Your task to perform on an android device: Search for Mexican restaurants on Maps Image 0: 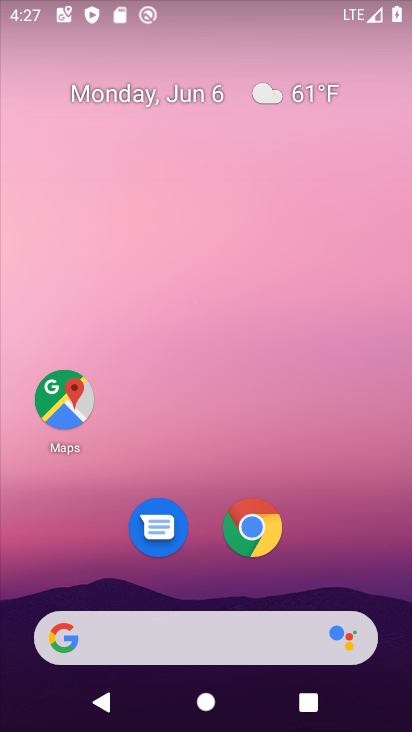
Step 0: click (51, 398)
Your task to perform on an android device: Search for Mexican restaurants on Maps Image 1: 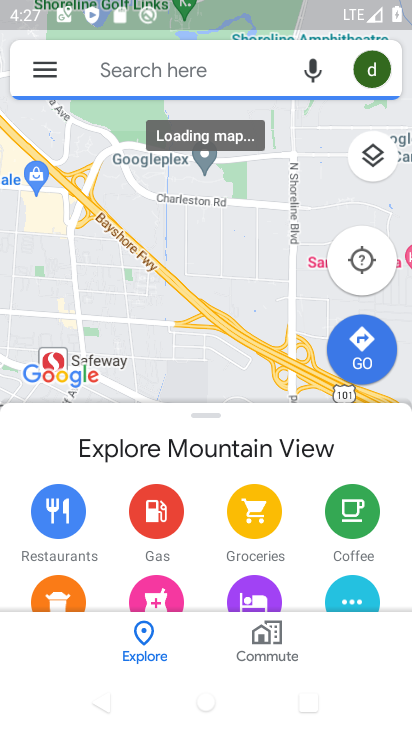
Step 1: click (187, 70)
Your task to perform on an android device: Search for Mexican restaurants on Maps Image 2: 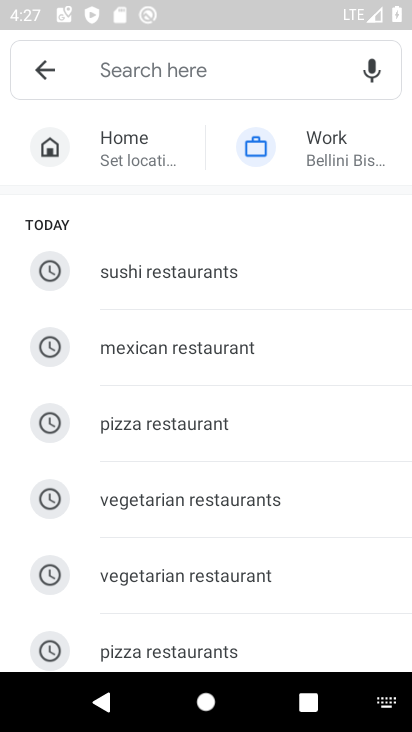
Step 2: click (268, 333)
Your task to perform on an android device: Search for Mexican restaurants on Maps Image 3: 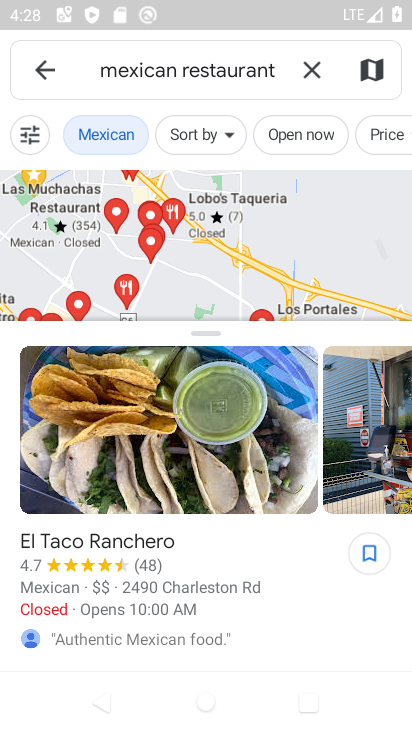
Step 3: task complete